Your task to perform on an android device: open the mobile data screen to see how much data has been used Image 0: 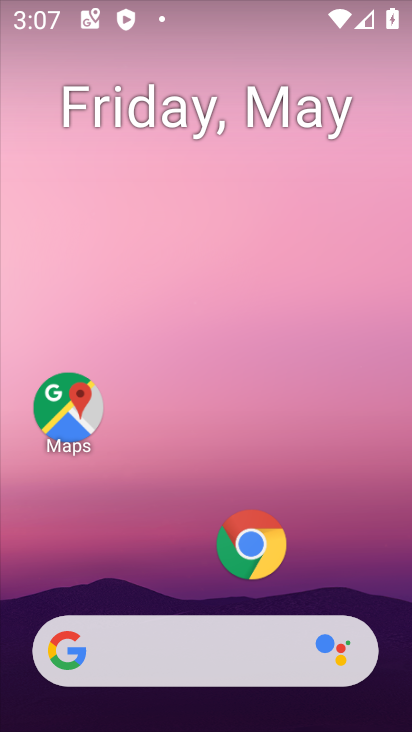
Step 0: drag from (207, 587) to (203, 146)
Your task to perform on an android device: open the mobile data screen to see how much data has been used Image 1: 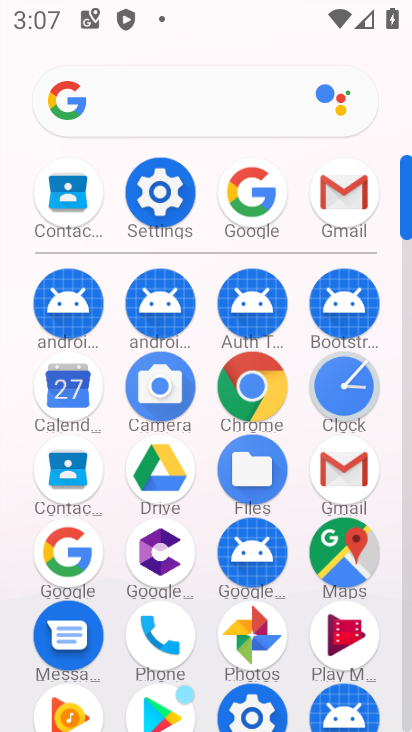
Step 1: click (159, 182)
Your task to perform on an android device: open the mobile data screen to see how much data has been used Image 2: 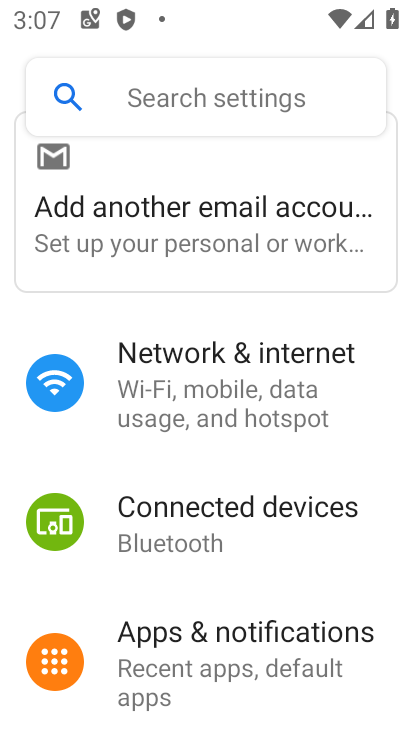
Step 2: drag from (160, 189) to (202, 268)
Your task to perform on an android device: open the mobile data screen to see how much data has been used Image 3: 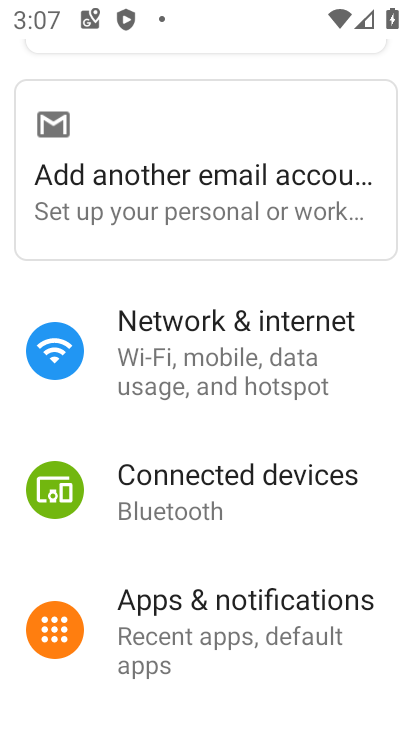
Step 3: drag from (248, 533) to (248, 437)
Your task to perform on an android device: open the mobile data screen to see how much data has been used Image 4: 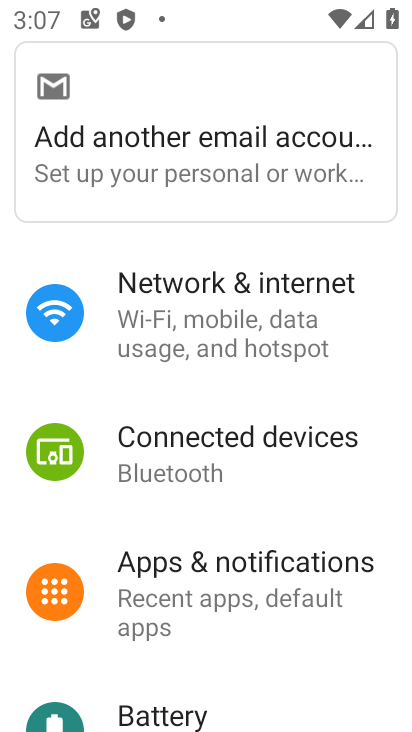
Step 4: click (248, 331)
Your task to perform on an android device: open the mobile data screen to see how much data has been used Image 5: 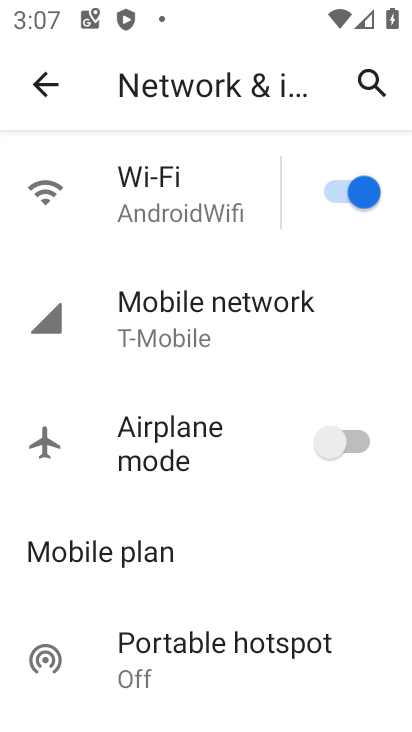
Step 5: click (248, 331)
Your task to perform on an android device: open the mobile data screen to see how much data has been used Image 6: 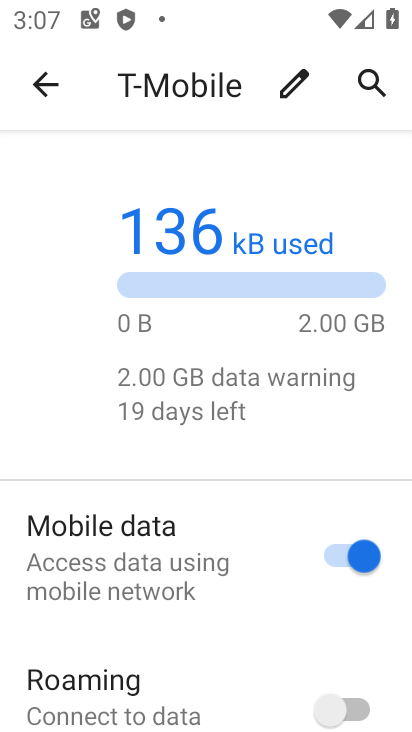
Step 6: task complete